Your task to perform on an android device: Open Youtube and go to "Your channel" Image 0: 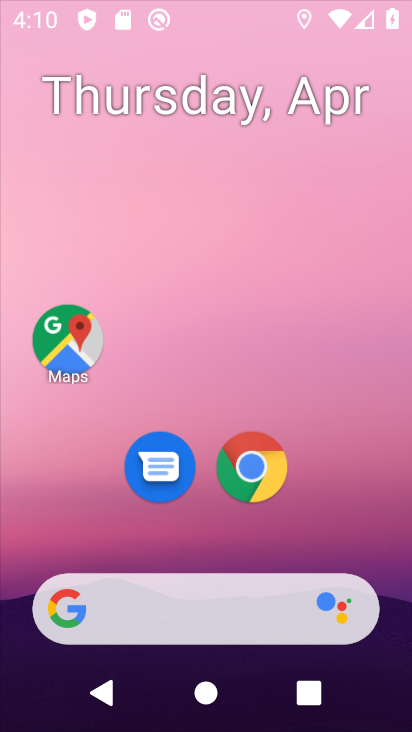
Step 0: drag from (328, 20) to (283, 0)
Your task to perform on an android device: Open Youtube and go to "Your channel" Image 1: 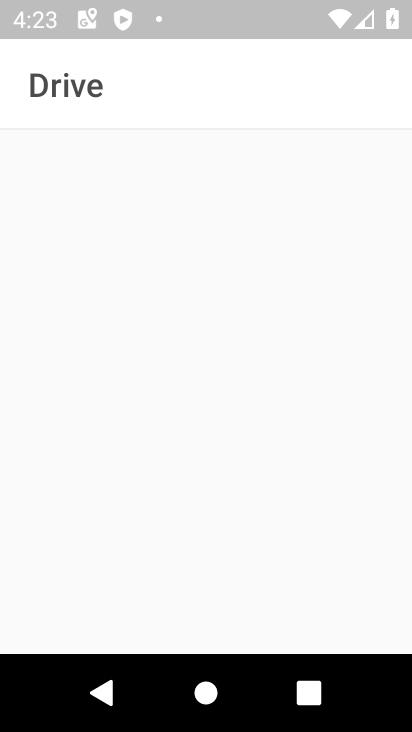
Step 1: press home button
Your task to perform on an android device: Open Youtube and go to "Your channel" Image 2: 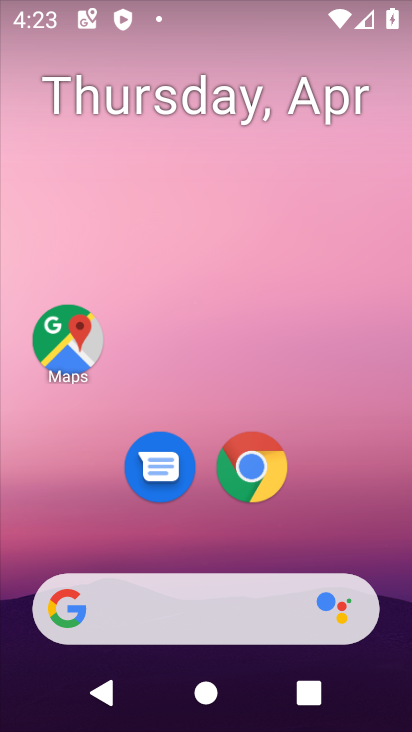
Step 2: drag from (201, 538) to (266, 146)
Your task to perform on an android device: Open Youtube and go to "Your channel" Image 3: 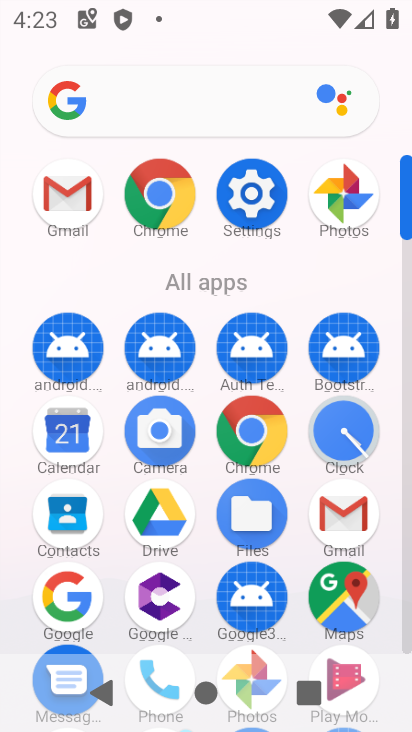
Step 3: drag from (206, 554) to (222, 151)
Your task to perform on an android device: Open Youtube and go to "Your channel" Image 4: 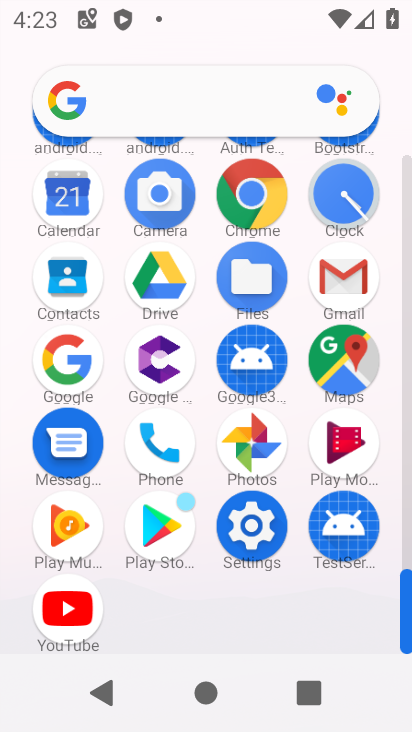
Step 4: click (49, 621)
Your task to perform on an android device: Open Youtube and go to "Your channel" Image 5: 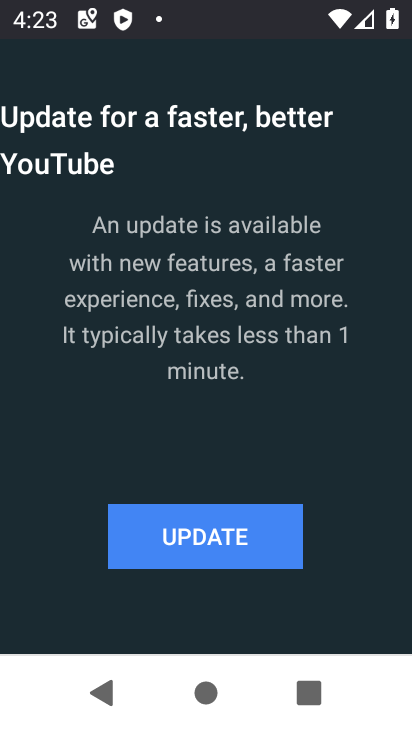
Step 5: click (247, 556)
Your task to perform on an android device: Open Youtube and go to "Your channel" Image 6: 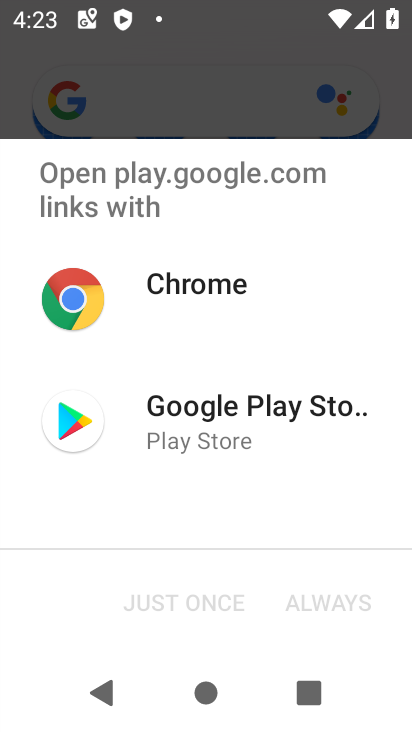
Step 6: click (205, 399)
Your task to perform on an android device: Open Youtube and go to "Your channel" Image 7: 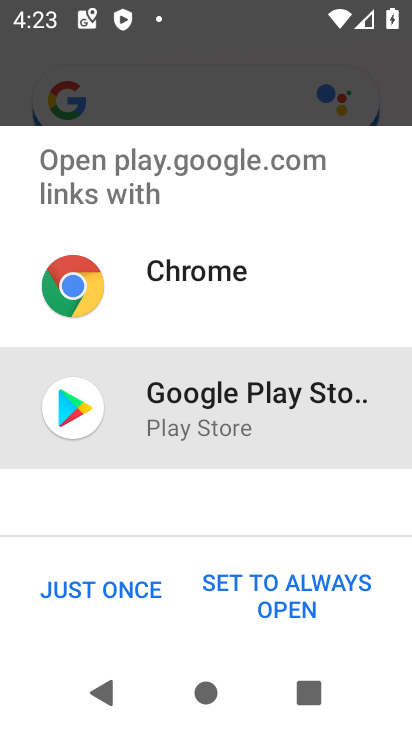
Step 7: click (79, 587)
Your task to perform on an android device: Open Youtube and go to "Your channel" Image 8: 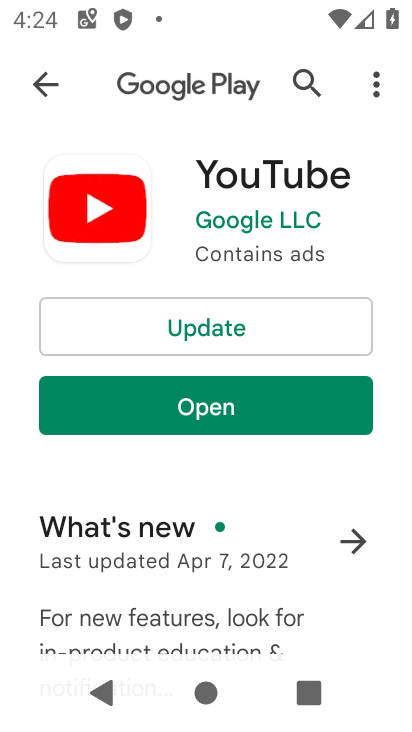
Step 8: click (218, 338)
Your task to perform on an android device: Open Youtube and go to "Your channel" Image 9: 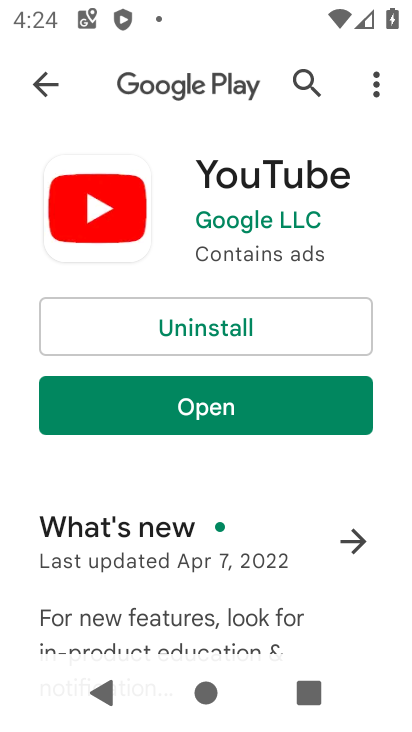
Step 9: click (231, 414)
Your task to perform on an android device: Open Youtube and go to "Your channel" Image 10: 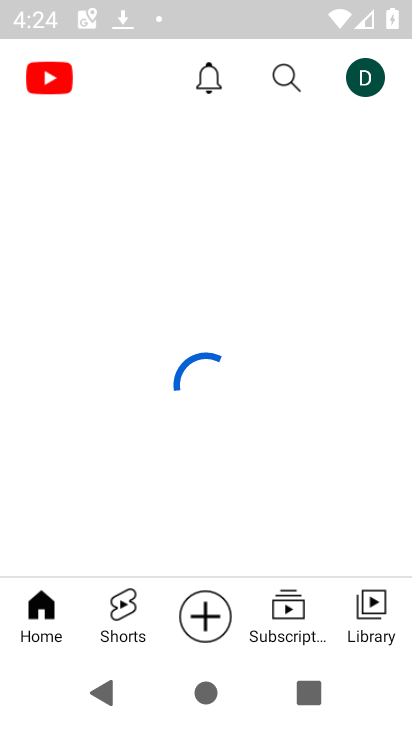
Step 10: click (368, 72)
Your task to perform on an android device: Open Youtube and go to "Your channel" Image 11: 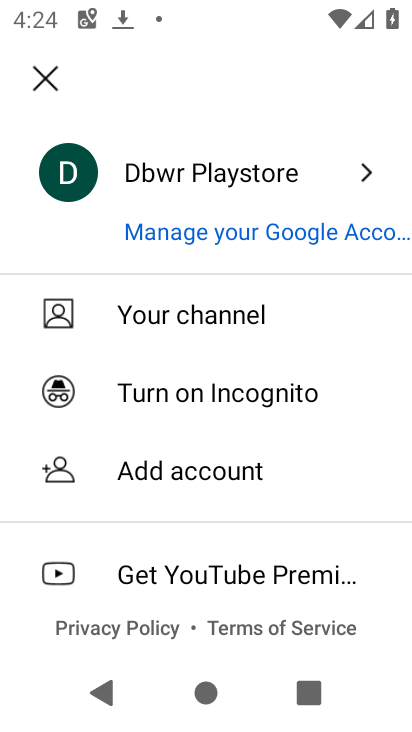
Step 11: click (207, 317)
Your task to perform on an android device: Open Youtube and go to "Your channel" Image 12: 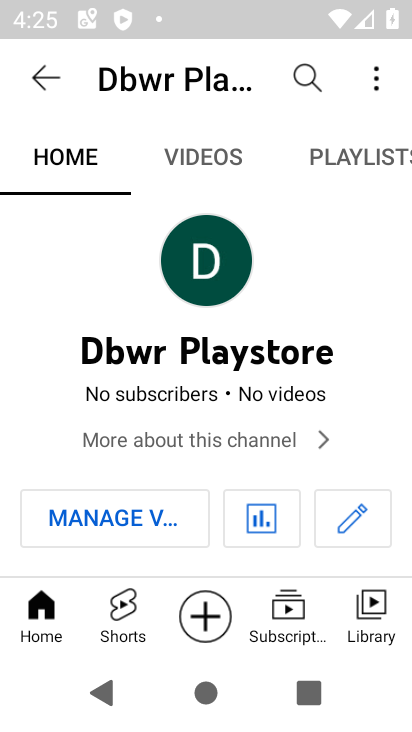
Step 12: task complete